Your task to perform on an android device: Search for flights from Tokyo to NYC Image 0: 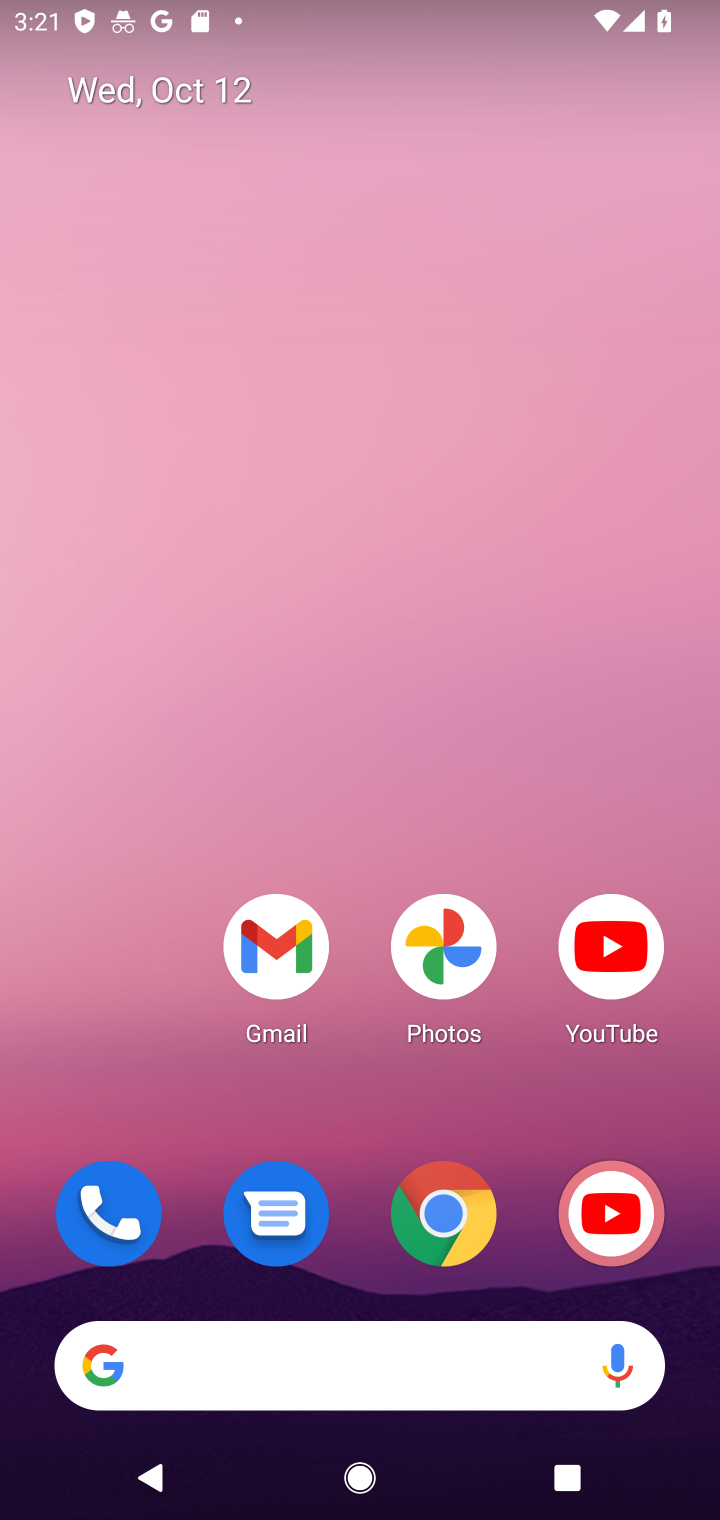
Step 0: click (334, 1363)
Your task to perform on an android device: Search for flights from Tokyo to NYC Image 1: 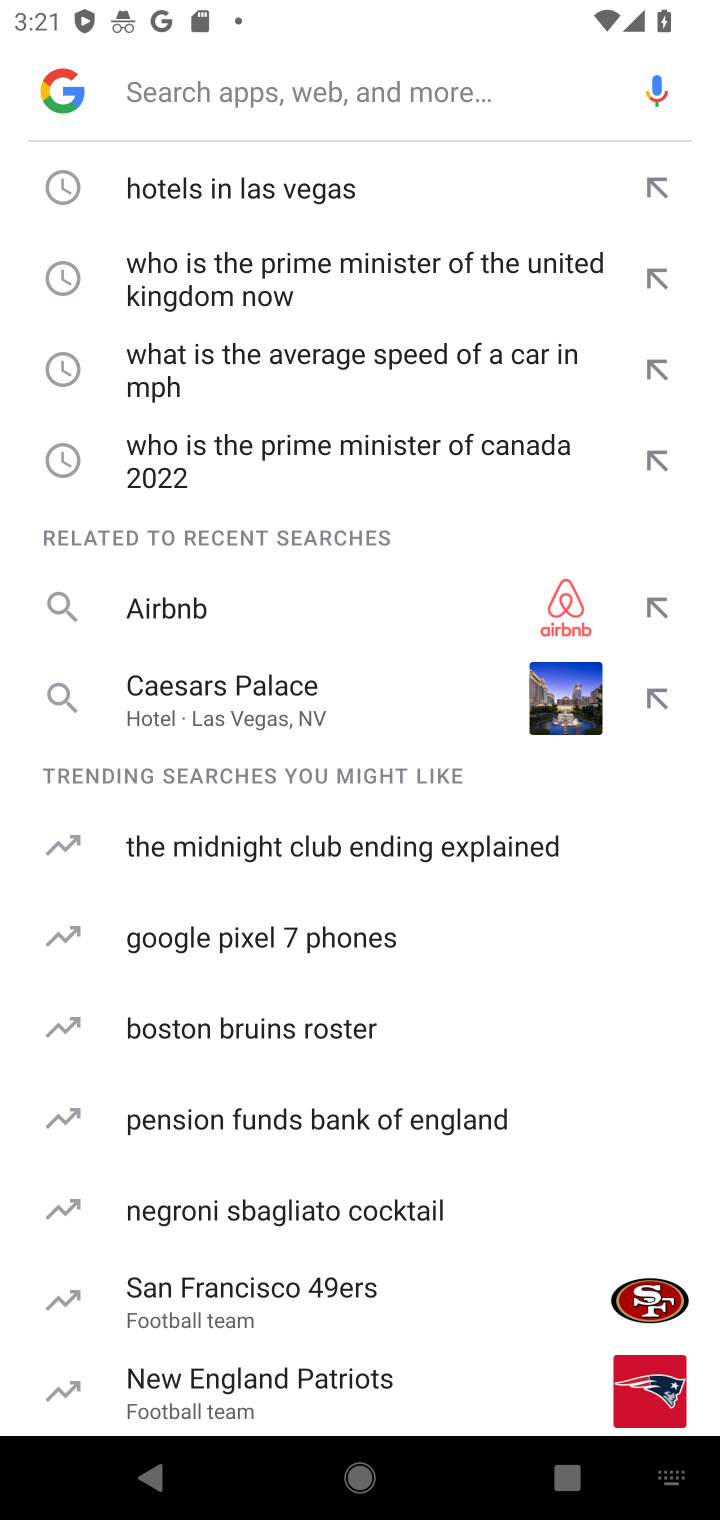
Step 1: click (146, 118)
Your task to perform on an android device: Search for flights from Tokyo to NYC Image 2: 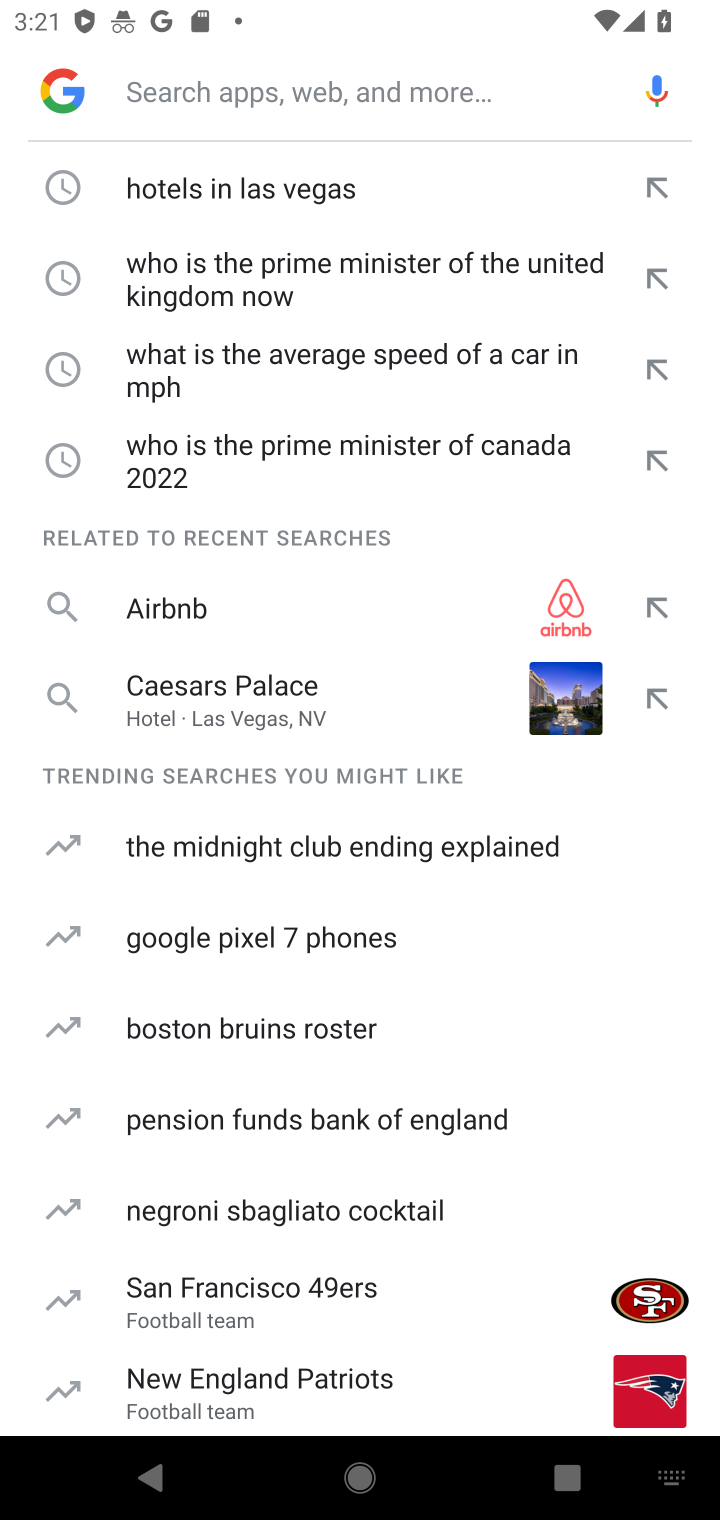
Step 2: type "flights from Tokyo to NYC"
Your task to perform on an android device: Search for flights from Tokyo to NYC Image 3: 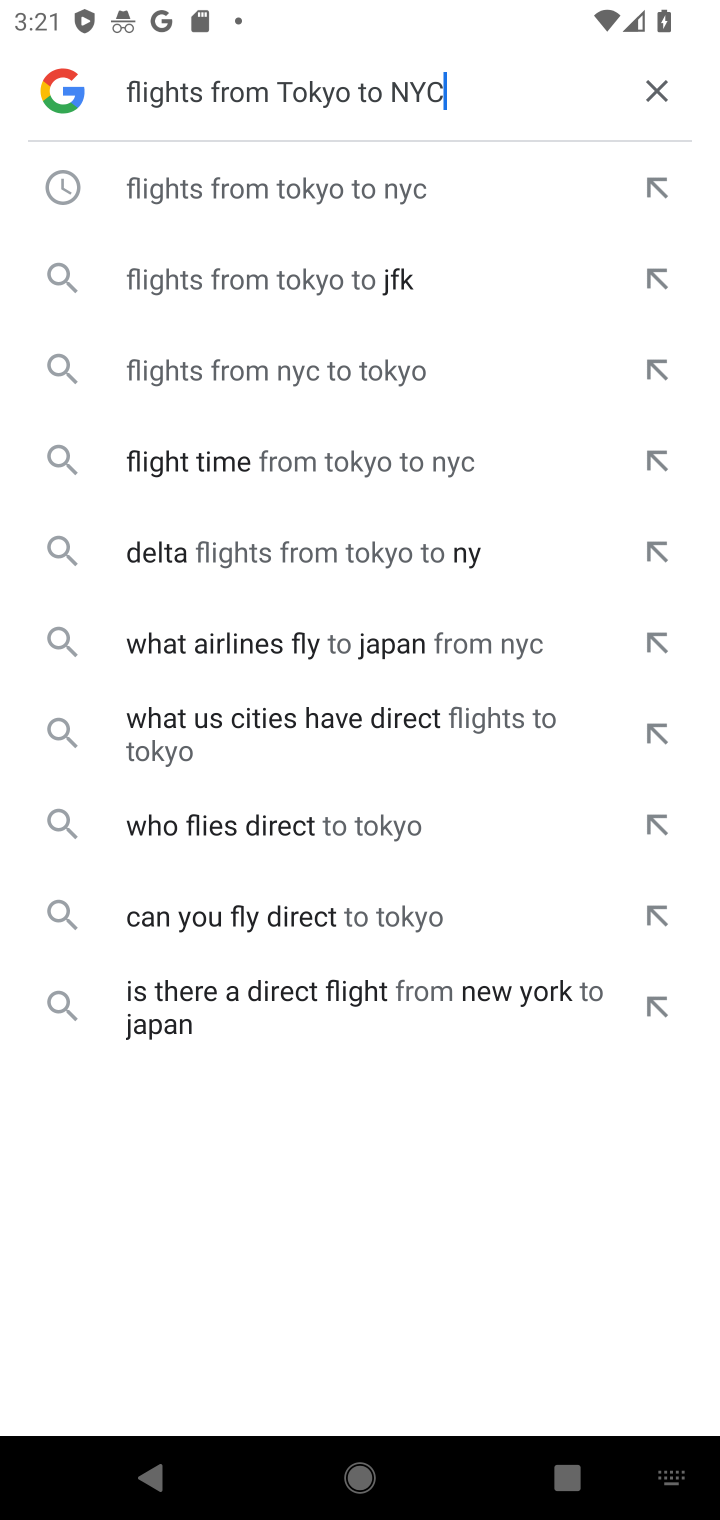
Step 3: click (188, 171)
Your task to perform on an android device: Search for flights from Tokyo to NYC Image 4: 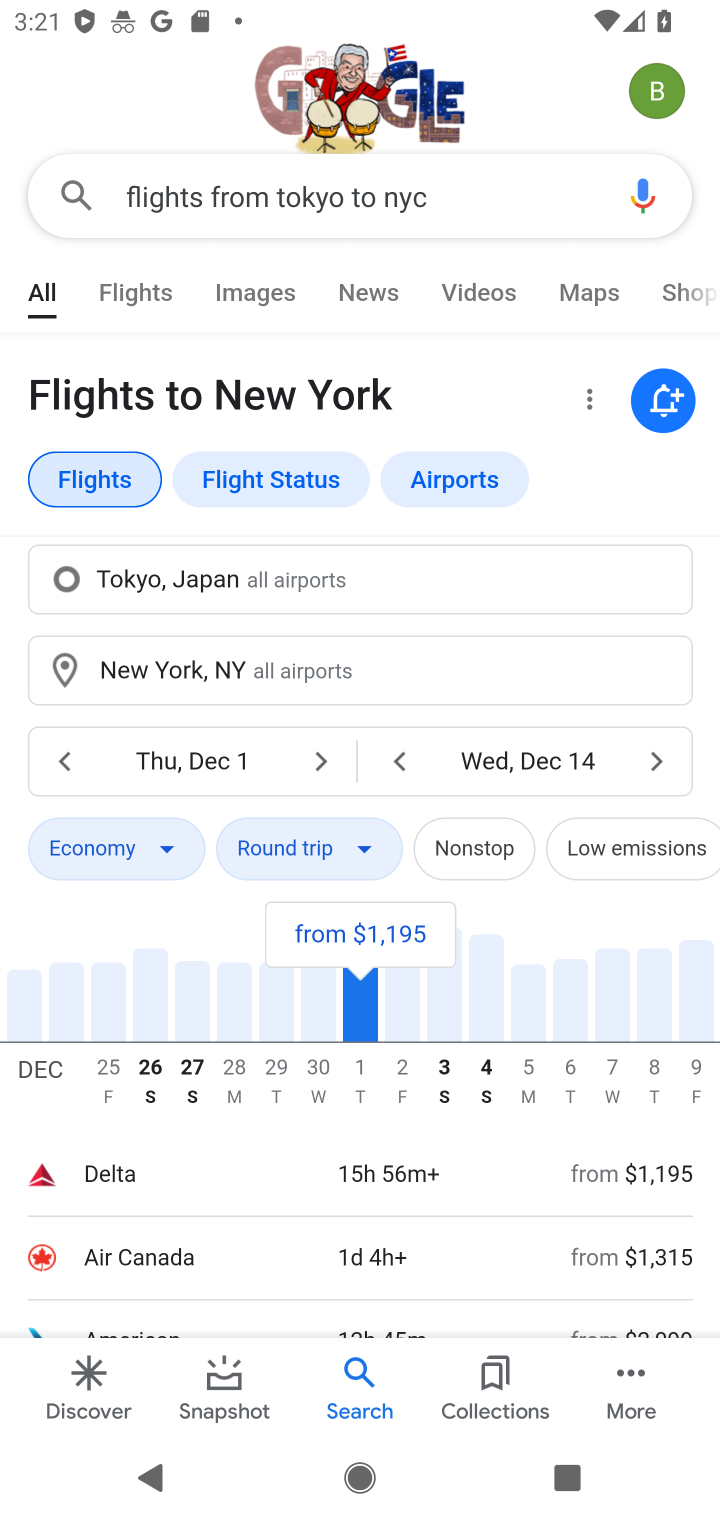
Step 4: task complete